Your task to perform on an android device: turn notification dots on Image 0: 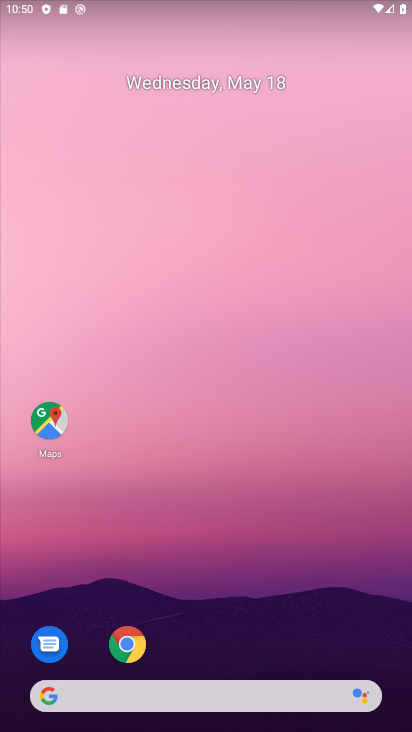
Step 0: drag from (328, 580) to (295, 63)
Your task to perform on an android device: turn notification dots on Image 1: 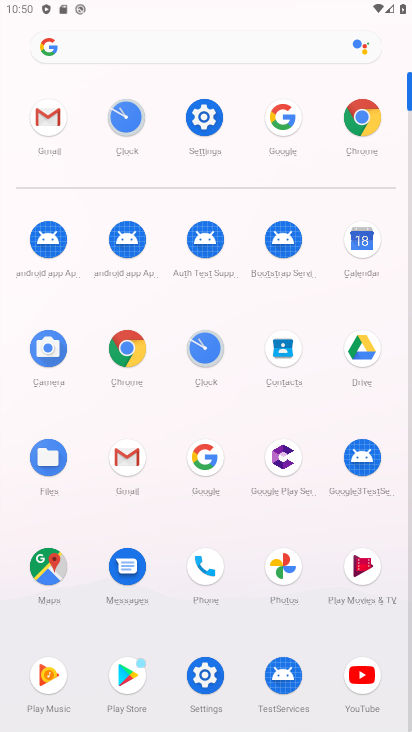
Step 1: click (204, 120)
Your task to perform on an android device: turn notification dots on Image 2: 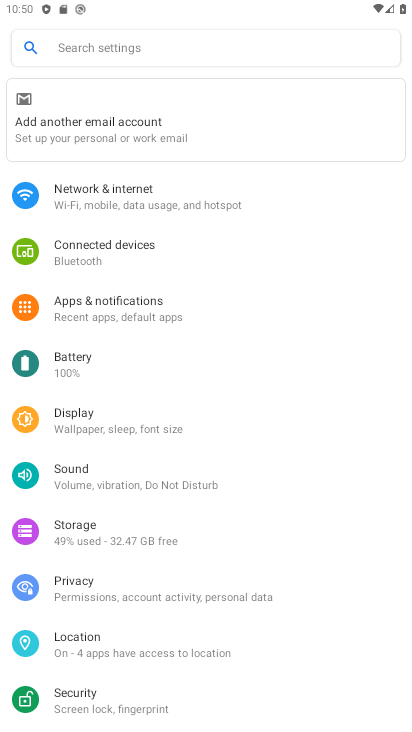
Step 2: click (140, 316)
Your task to perform on an android device: turn notification dots on Image 3: 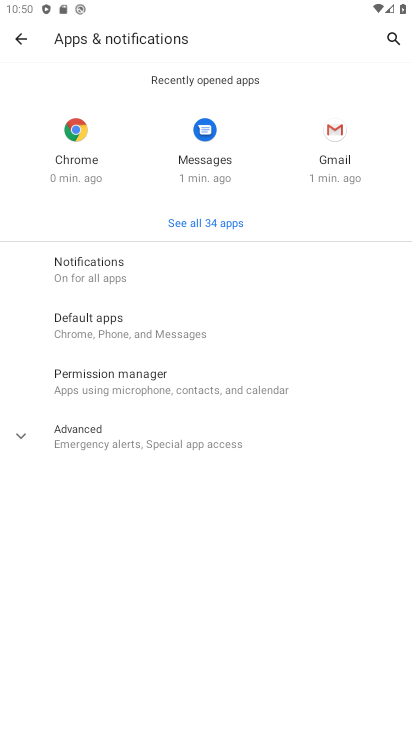
Step 3: click (156, 278)
Your task to perform on an android device: turn notification dots on Image 4: 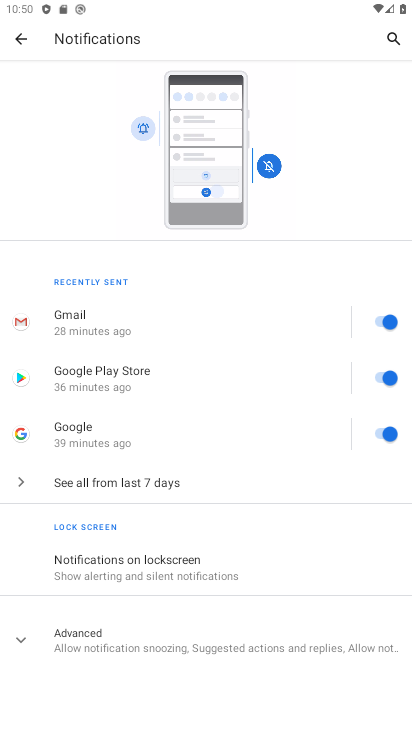
Step 4: click (108, 623)
Your task to perform on an android device: turn notification dots on Image 5: 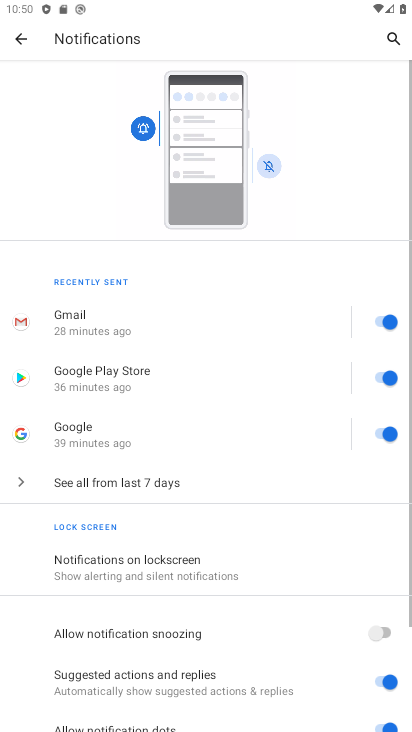
Step 5: task complete